Your task to perform on an android device: Search for Italian restaurants on Maps Image 0: 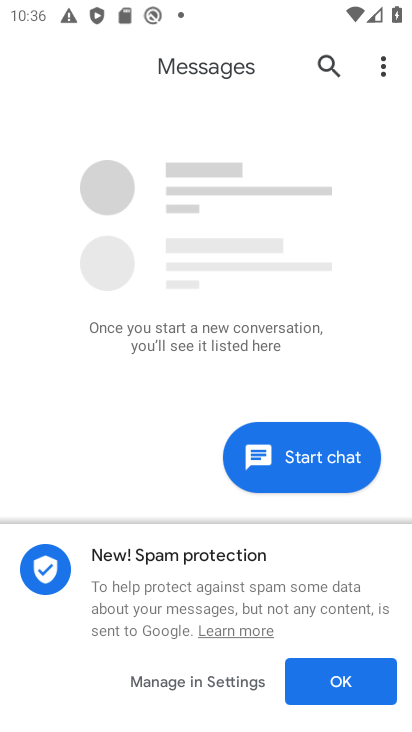
Step 0: press home button
Your task to perform on an android device: Search for Italian restaurants on Maps Image 1: 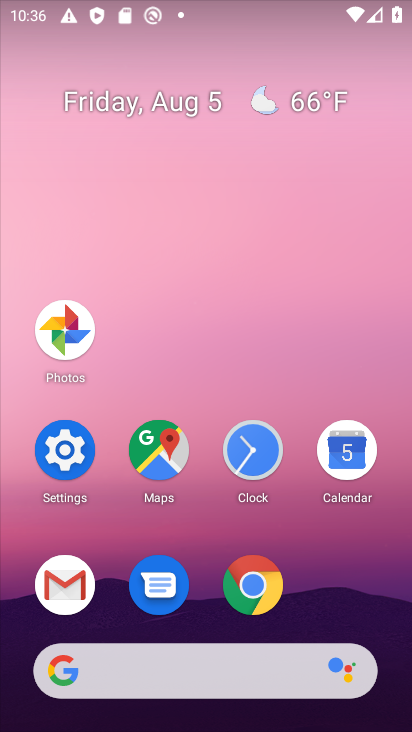
Step 1: click (165, 445)
Your task to perform on an android device: Search for Italian restaurants on Maps Image 2: 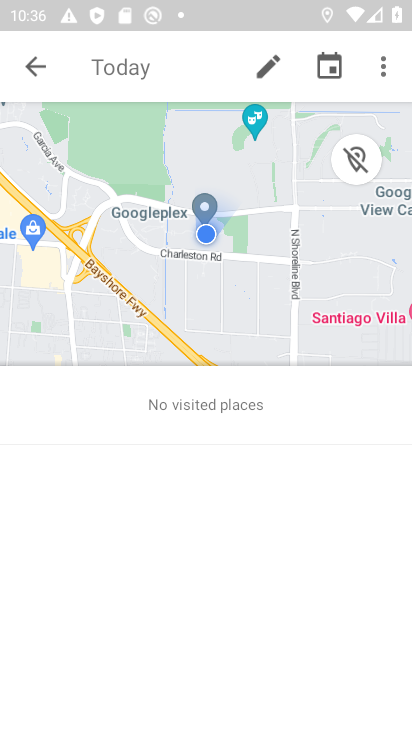
Step 2: click (31, 65)
Your task to perform on an android device: Search for Italian restaurants on Maps Image 3: 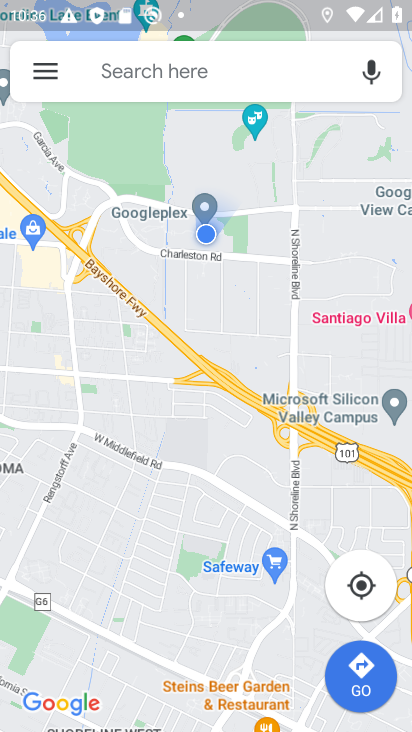
Step 3: click (156, 66)
Your task to perform on an android device: Search for Italian restaurants on Maps Image 4: 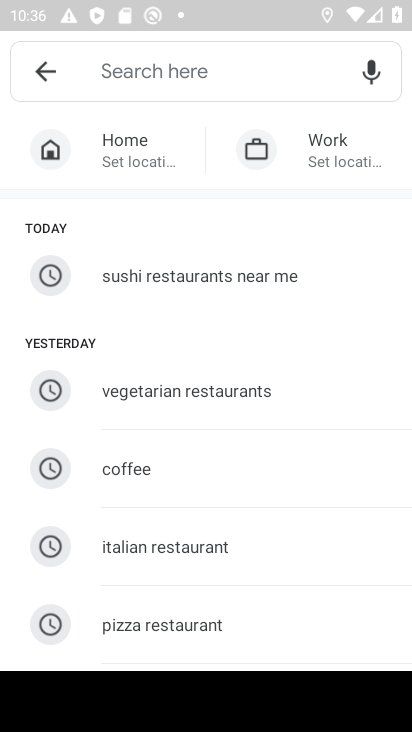
Step 4: click (180, 539)
Your task to perform on an android device: Search for Italian restaurants on Maps Image 5: 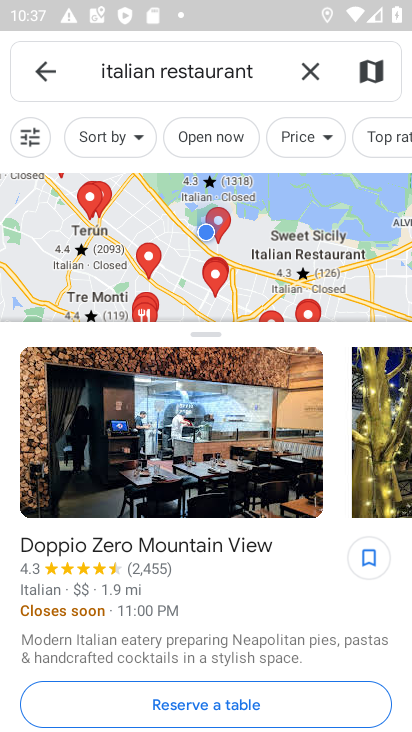
Step 5: task complete